Your task to perform on an android device: Go to battery settings Image 0: 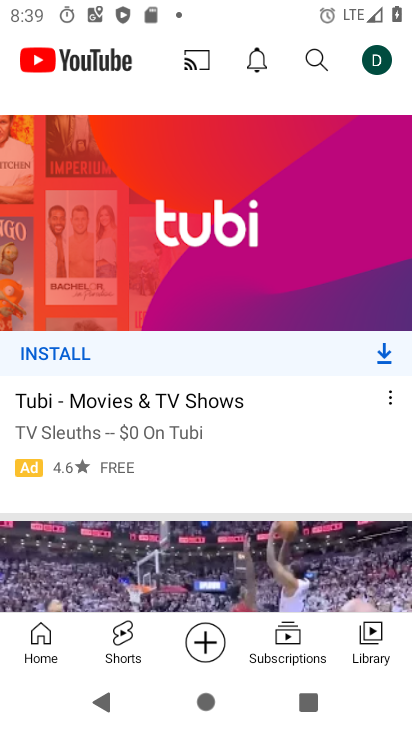
Step 0: press back button
Your task to perform on an android device: Go to battery settings Image 1: 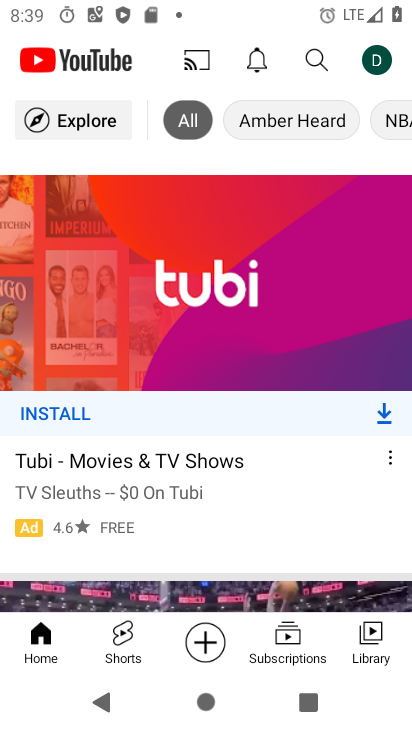
Step 1: press back button
Your task to perform on an android device: Go to battery settings Image 2: 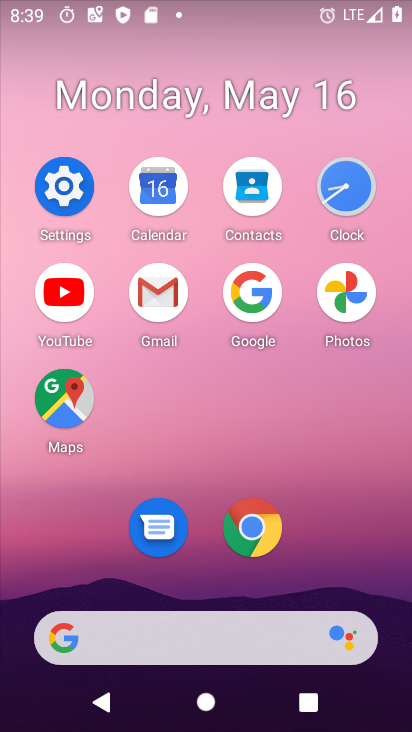
Step 2: click (61, 173)
Your task to perform on an android device: Go to battery settings Image 3: 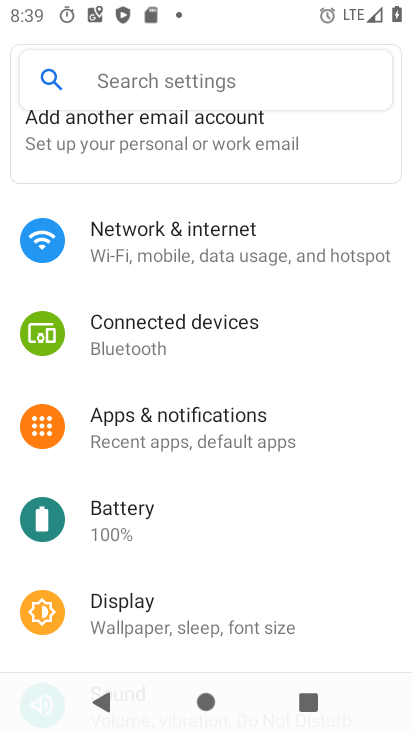
Step 3: click (246, 528)
Your task to perform on an android device: Go to battery settings Image 4: 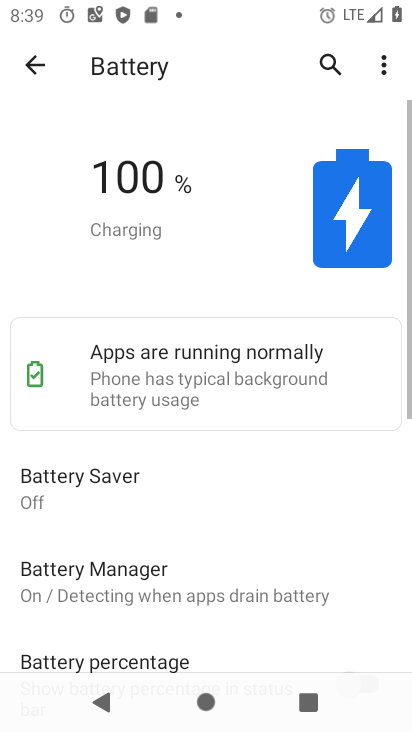
Step 4: task complete